Your task to perform on an android device: Open the phone app and click the voicemail tab. Image 0: 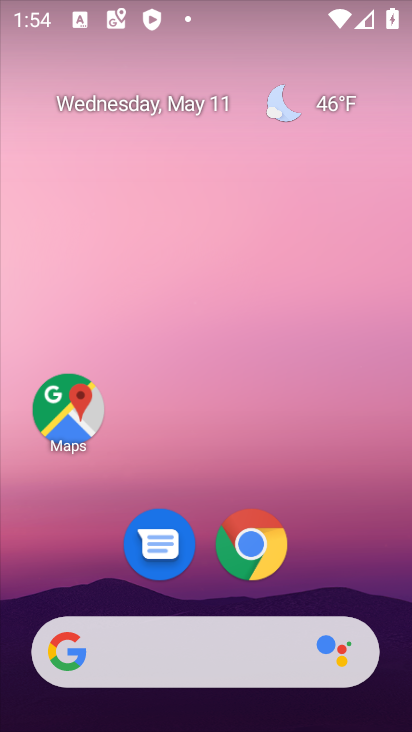
Step 0: drag from (394, 629) to (336, 104)
Your task to perform on an android device: Open the phone app and click the voicemail tab. Image 1: 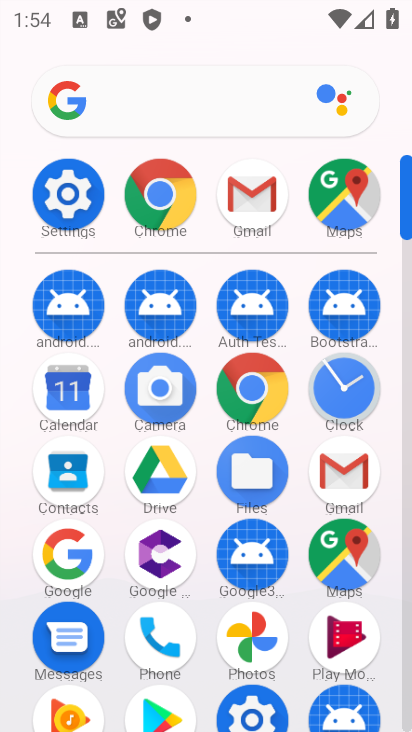
Step 1: click (407, 717)
Your task to perform on an android device: Open the phone app and click the voicemail tab. Image 2: 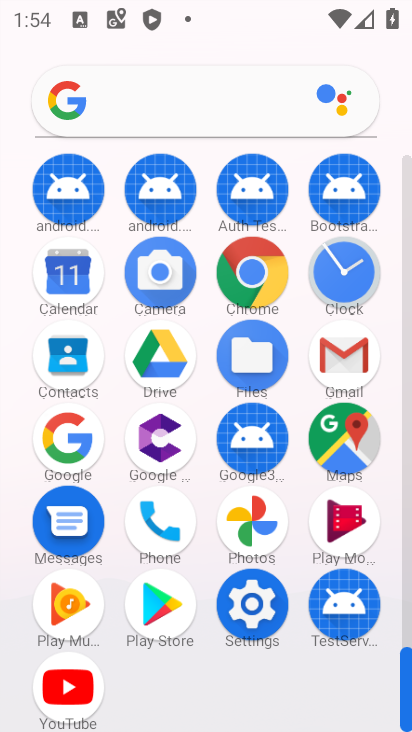
Step 2: click (155, 521)
Your task to perform on an android device: Open the phone app and click the voicemail tab. Image 3: 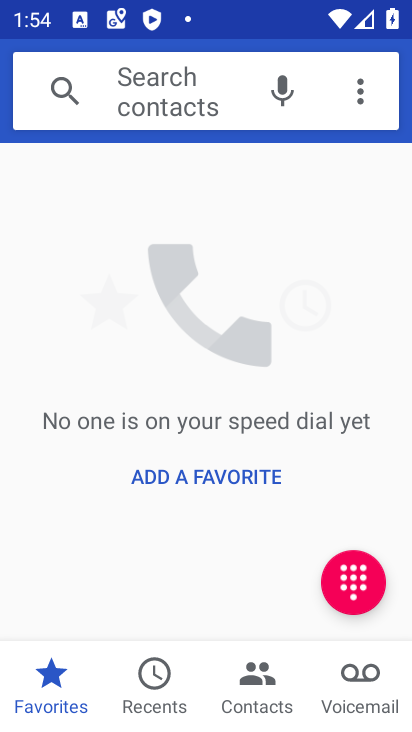
Step 3: click (355, 672)
Your task to perform on an android device: Open the phone app and click the voicemail tab. Image 4: 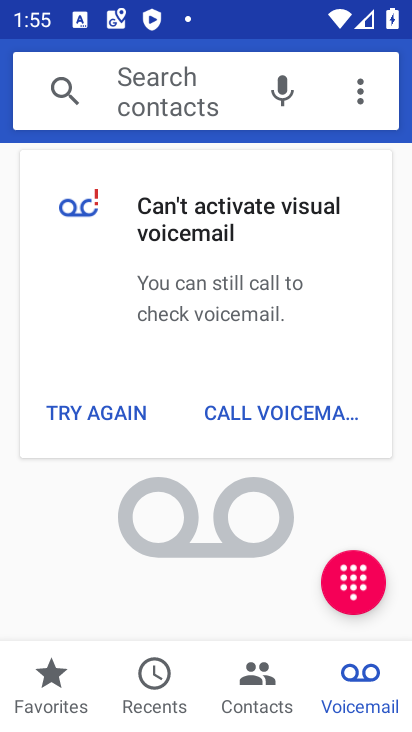
Step 4: task complete